Your task to perform on an android device: open app "NewsBreak: Local News & Alerts" (install if not already installed) Image 0: 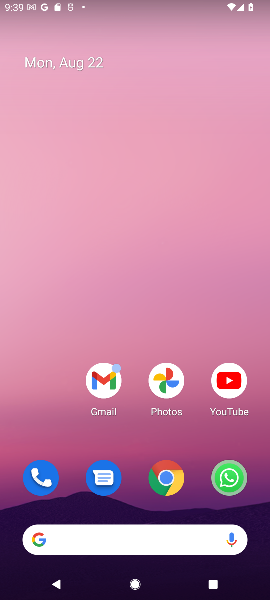
Step 0: drag from (132, 499) to (141, 20)
Your task to perform on an android device: open app "NewsBreak: Local News & Alerts" (install if not already installed) Image 1: 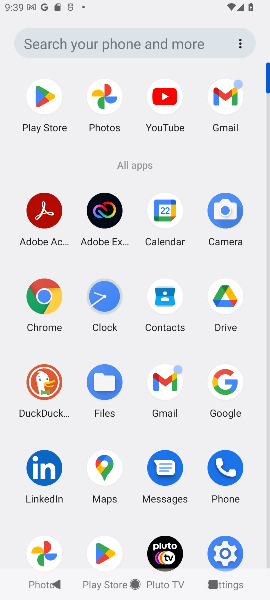
Step 1: click (61, 109)
Your task to perform on an android device: open app "NewsBreak: Local News & Alerts" (install if not already installed) Image 2: 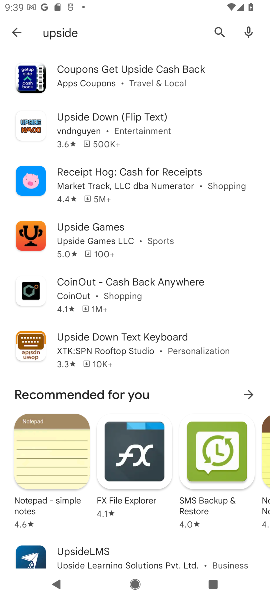
Step 2: click (217, 35)
Your task to perform on an android device: open app "NewsBreak: Local News & Alerts" (install if not already installed) Image 3: 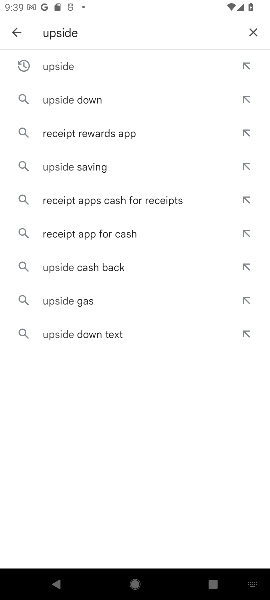
Step 3: click (248, 36)
Your task to perform on an android device: open app "NewsBreak: Local News & Alerts" (install if not already installed) Image 4: 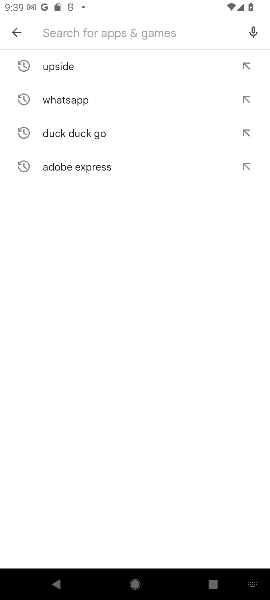
Step 4: type "news break"
Your task to perform on an android device: open app "NewsBreak: Local News & Alerts" (install if not already installed) Image 5: 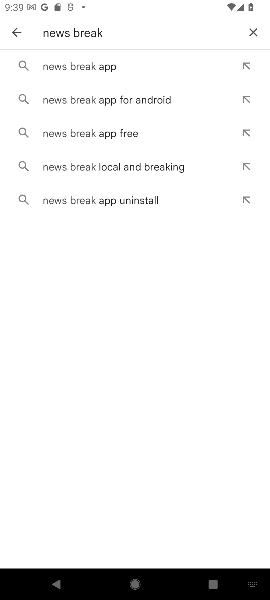
Step 5: click (137, 75)
Your task to perform on an android device: open app "NewsBreak: Local News & Alerts" (install if not already installed) Image 6: 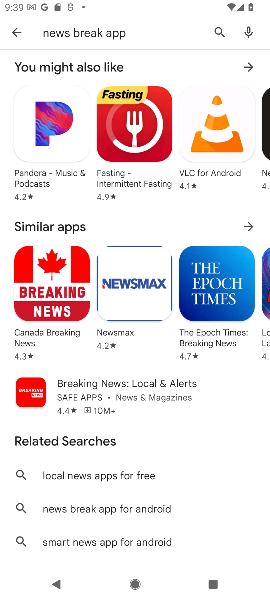
Step 6: task complete